Your task to perform on an android device: show emergency info Image 0: 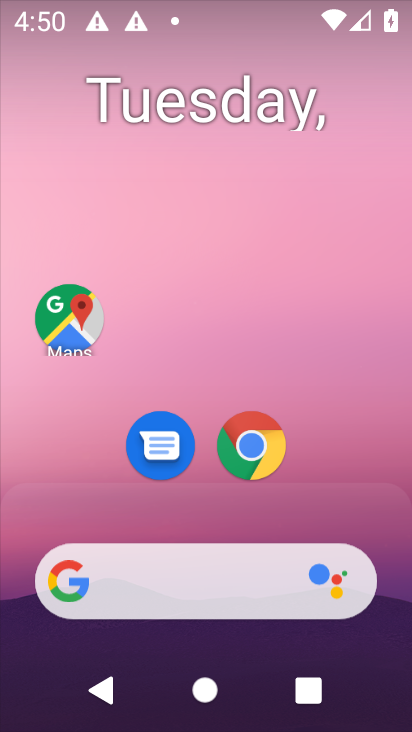
Step 0: drag from (181, 512) to (199, 2)
Your task to perform on an android device: show emergency info Image 1: 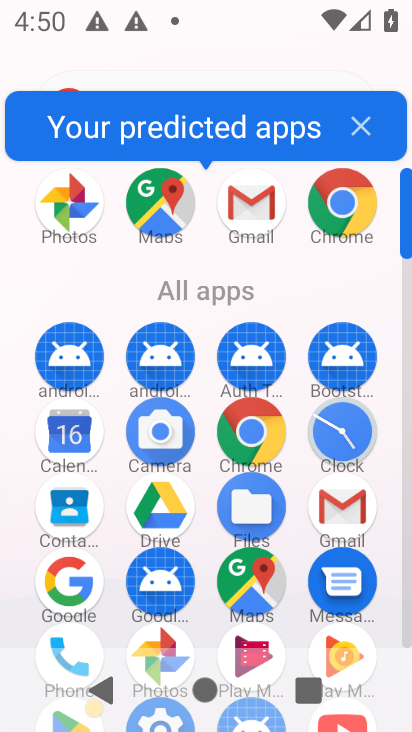
Step 1: drag from (198, 498) to (219, 54)
Your task to perform on an android device: show emergency info Image 2: 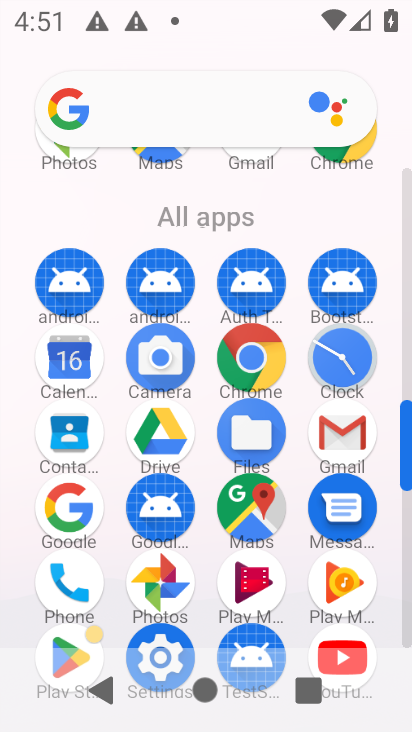
Step 2: click (153, 636)
Your task to perform on an android device: show emergency info Image 3: 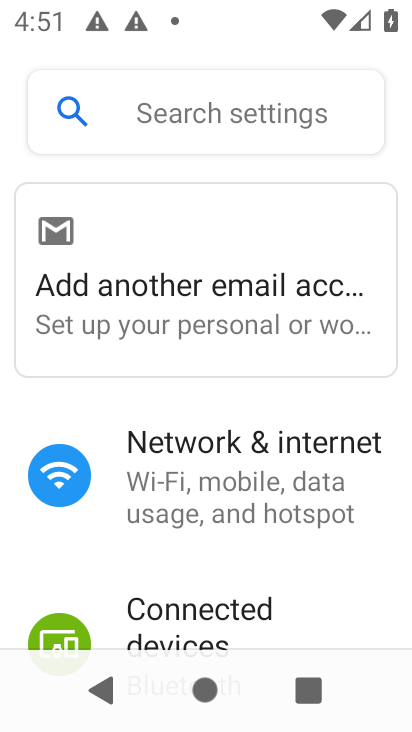
Step 3: drag from (286, 378) to (286, 9)
Your task to perform on an android device: show emergency info Image 4: 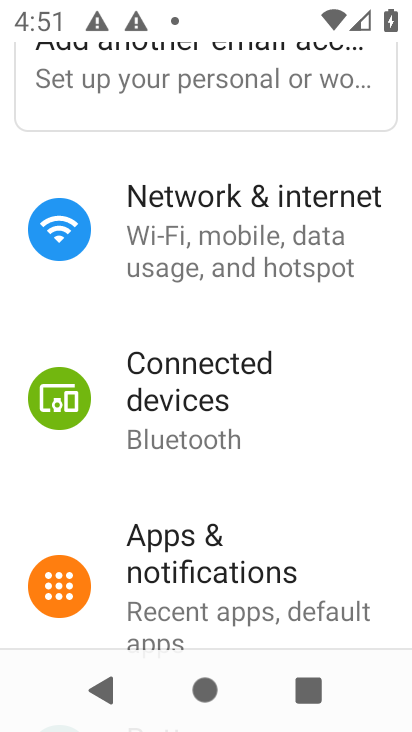
Step 4: drag from (279, 438) to (269, 40)
Your task to perform on an android device: show emergency info Image 5: 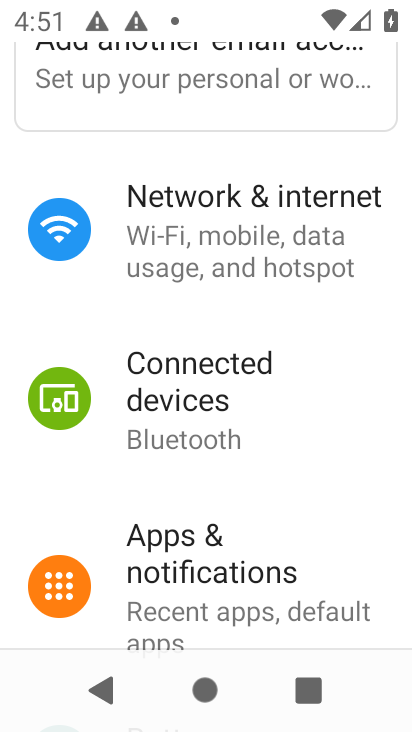
Step 5: drag from (204, 572) to (219, 176)
Your task to perform on an android device: show emergency info Image 6: 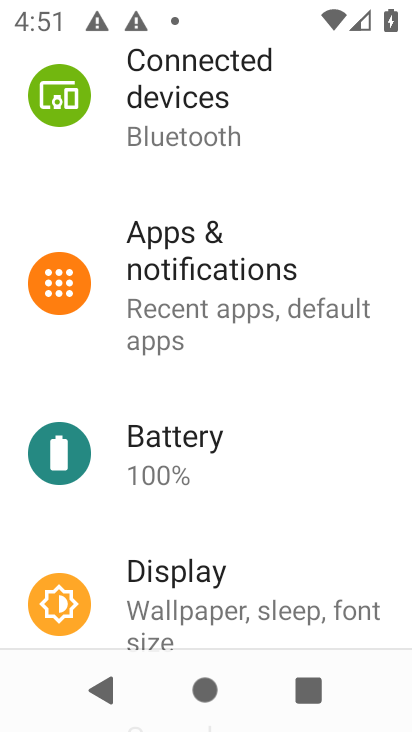
Step 6: drag from (224, 639) to (222, 236)
Your task to perform on an android device: show emergency info Image 7: 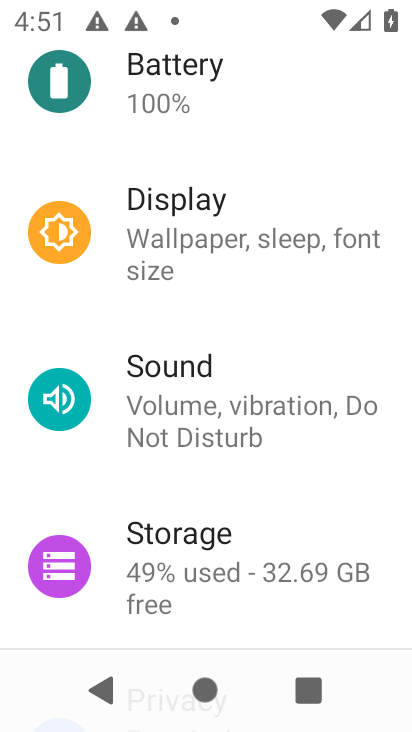
Step 7: drag from (234, 582) to (216, 81)
Your task to perform on an android device: show emergency info Image 8: 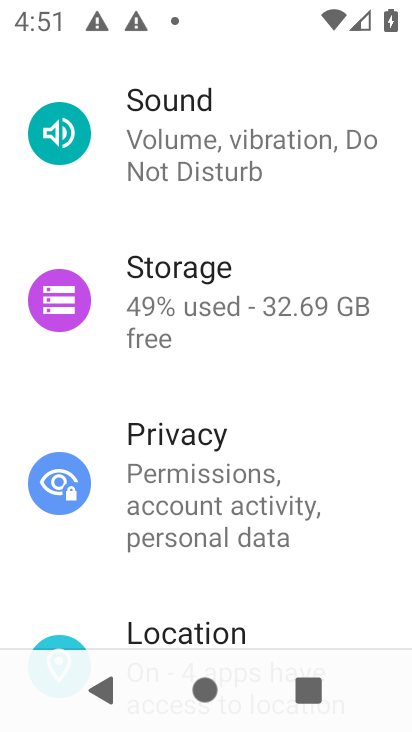
Step 8: click (180, 137)
Your task to perform on an android device: show emergency info Image 9: 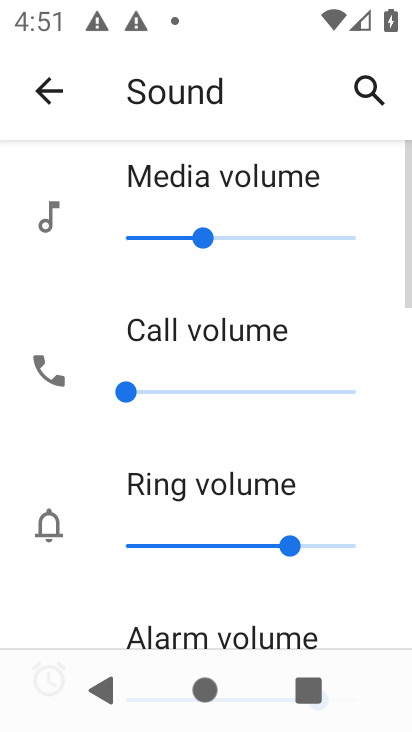
Step 9: drag from (257, 617) to (47, 80)
Your task to perform on an android device: show emergency info Image 10: 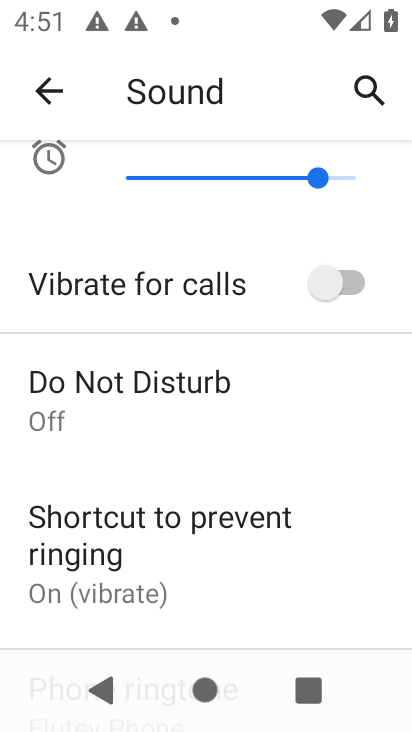
Step 10: click (47, 80)
Your task to perform on an android device: show emergency info Image 11: 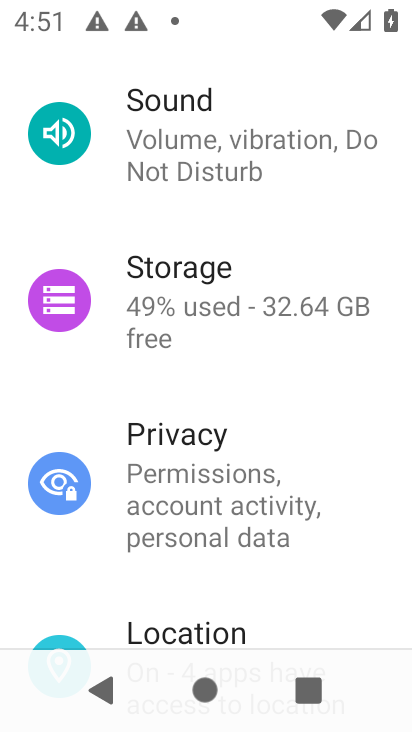
Step 11: drag from (248, 587) to (248, 292)
Your task to perform on an android device: show emergency info Image 12: 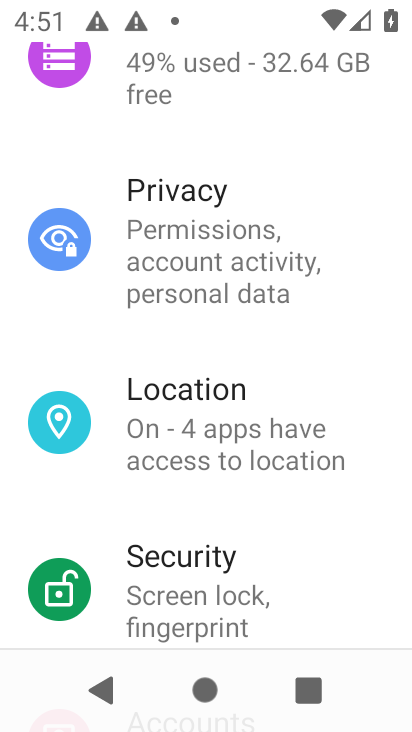
Step 12: drag from (284, 547) to (251, 15)
Your task to perform on an android device: show emergency info Image 13: 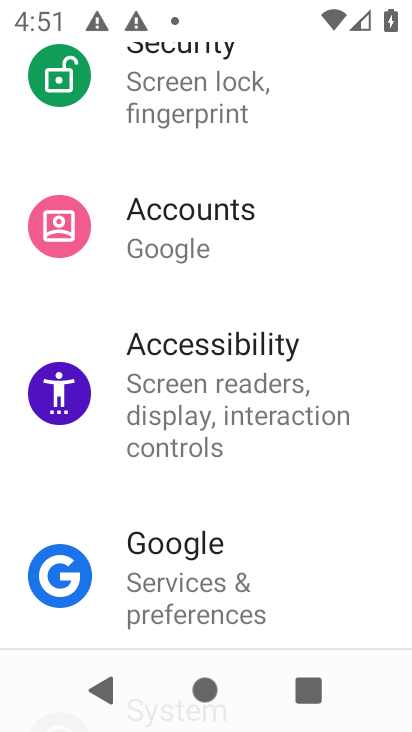
Step 13: drag from (268, 618) to (259, 205)
Your task to perform on an android device: show emergency info Image 14: 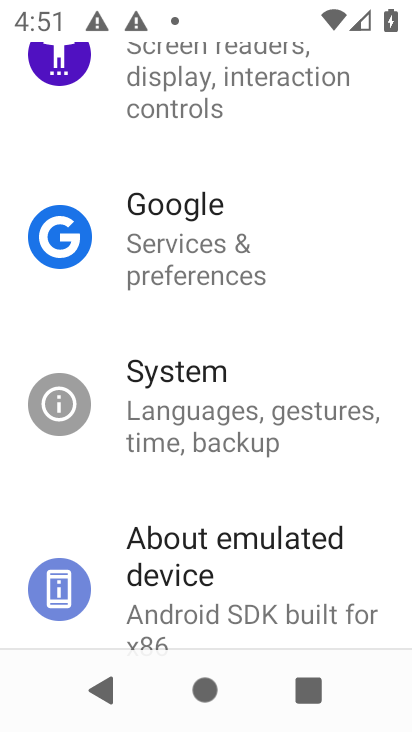
Step 14: click (187, 584)
Your task to perform on an android device: show emergency info Image 15: 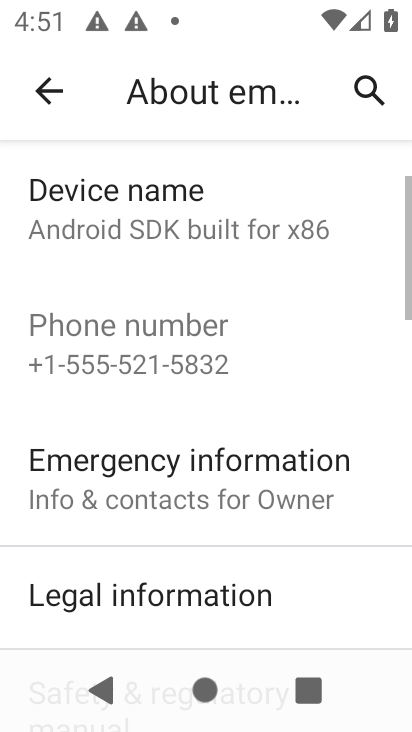
Step 15: click (134, 490)
Your task to perform on an android device: show emergency info Image 16: 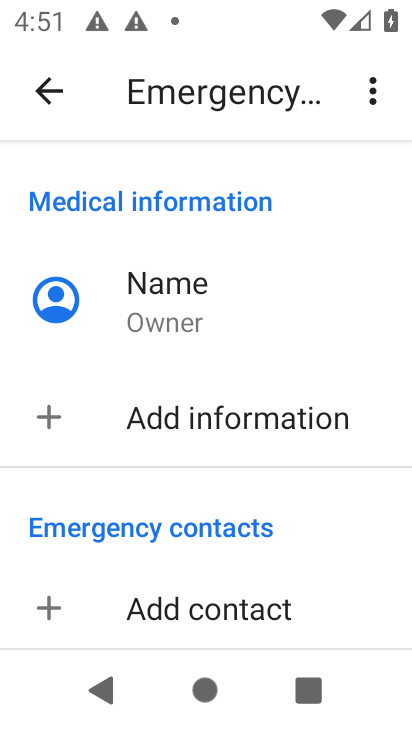
Step 16: task complete